Your task to perform on an android device: Open calendar and show me the fourth week of next month Image 0: 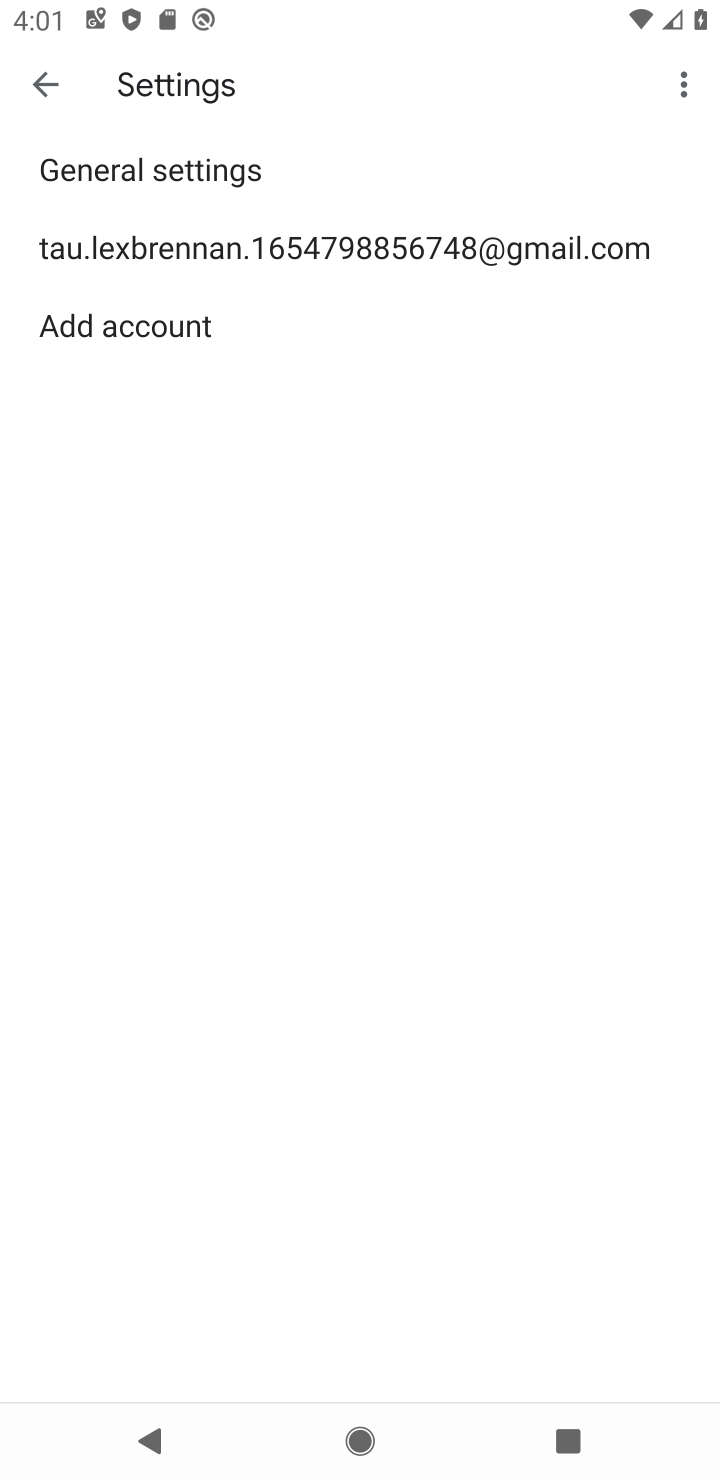
Step 0: press home button
Your task to perform on an android device: Open calendar and show me the fourth week of next month Image 1: 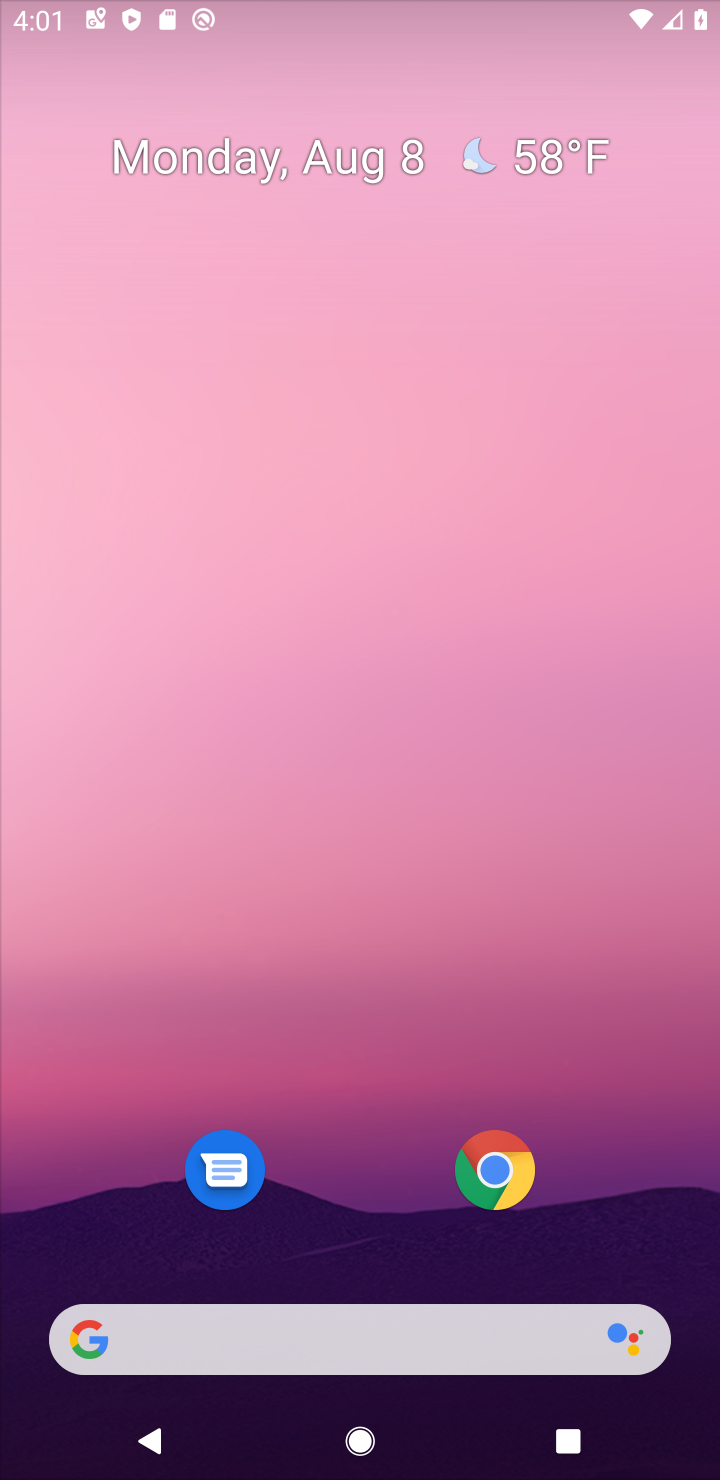
Step 1: drag from (351, 1015) to (354, 165)
Your task to perform on an android device: Open calendar and show me the fourth week of next month Image 2: 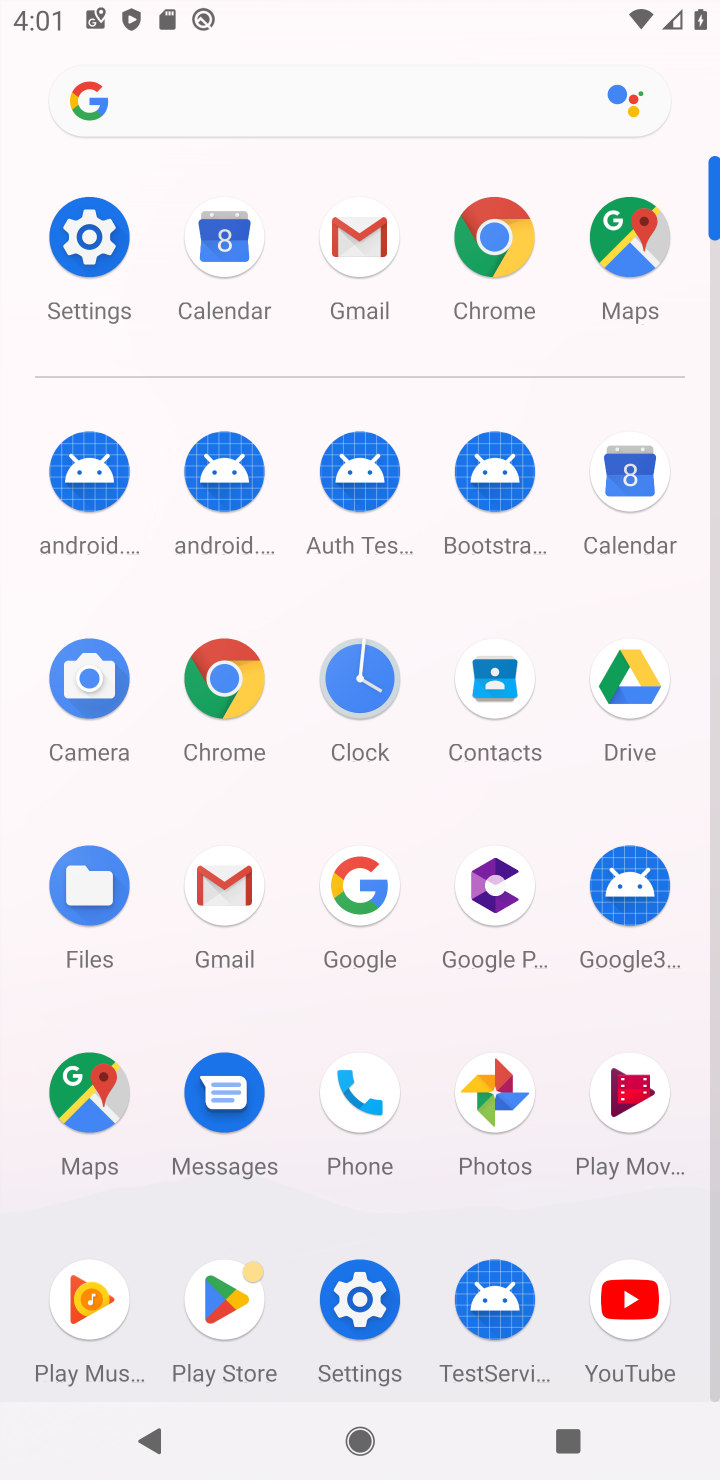
Step 2: click (260, 259)
Your task to perform on an android device: Open calendar and show me the fourth week of next month Image 3: 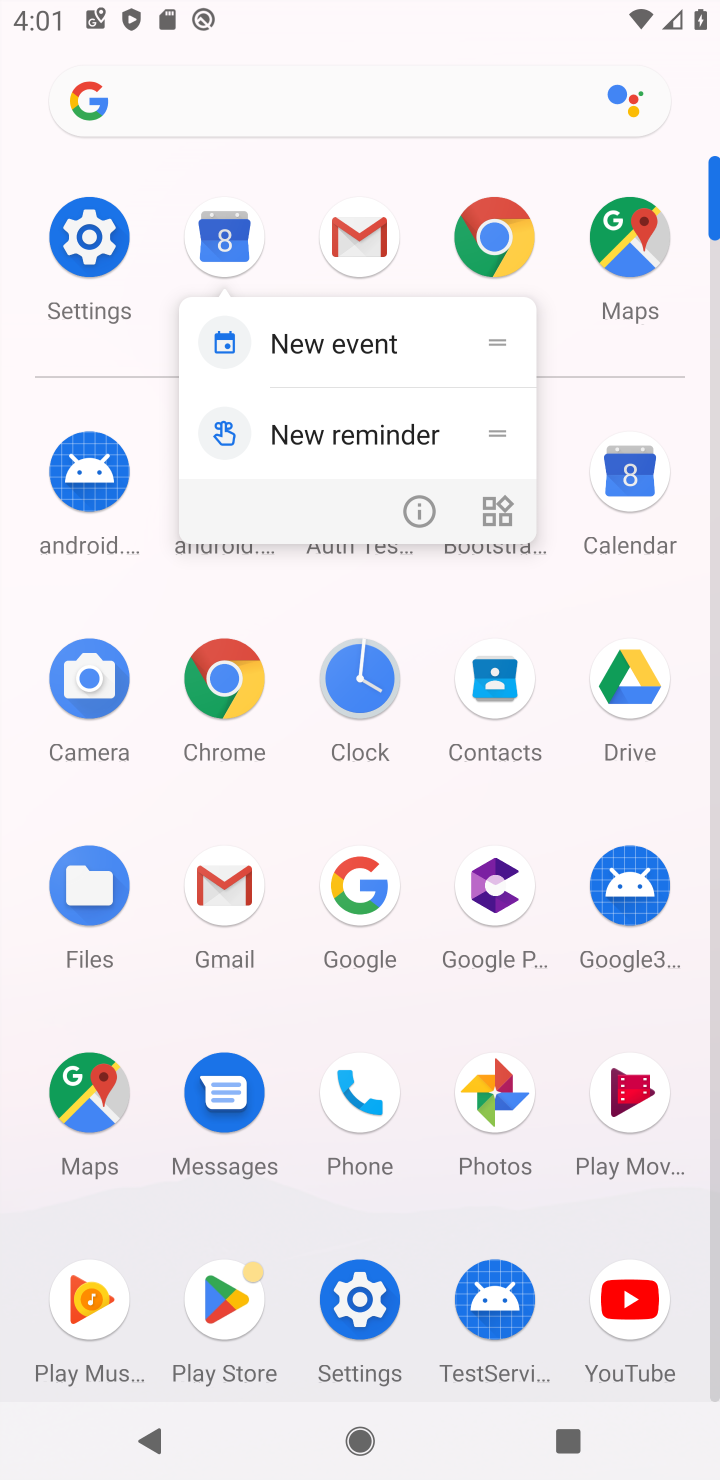
Step 3: click (235, 236)
Your task to perform on an android device: Open calendar and show me the fourth week of next month Image 4: 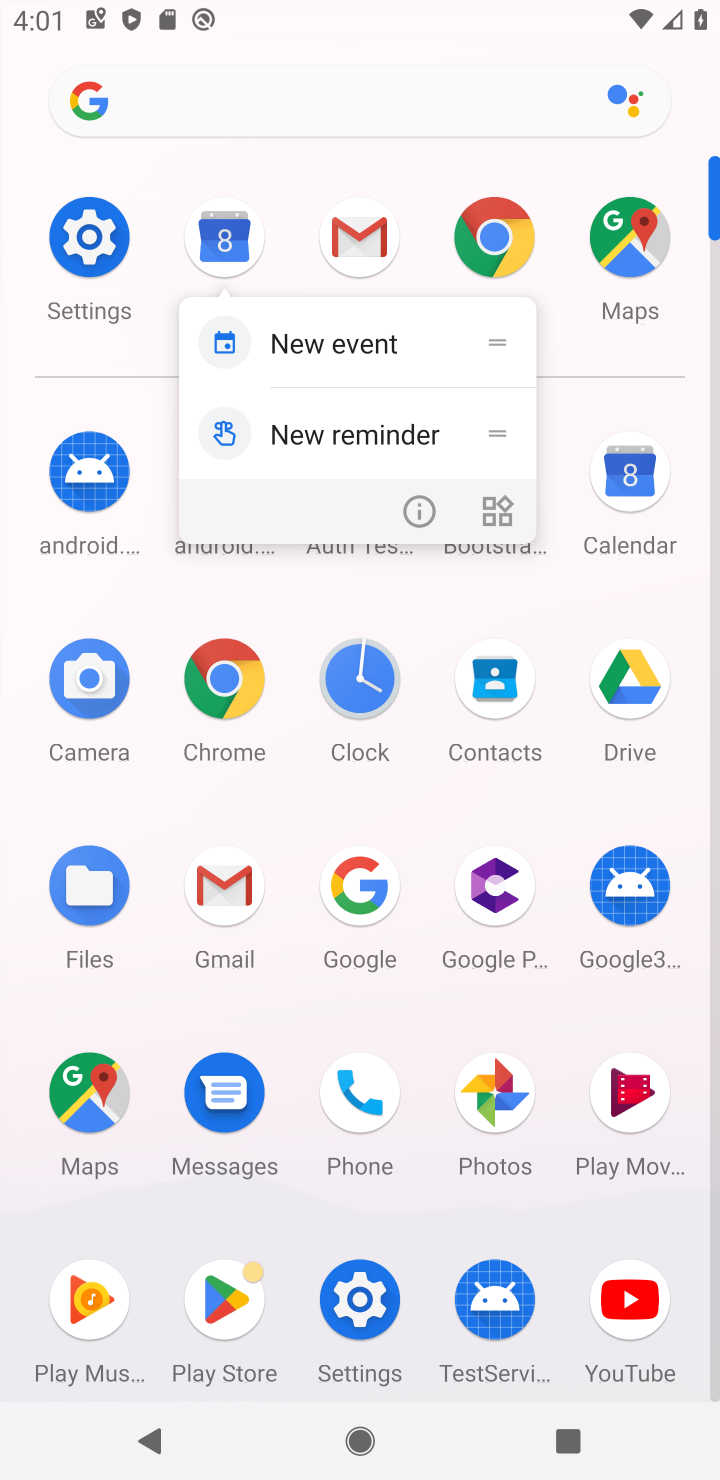
Step 4: click (235, 236)
Your task to perform on an android device: Open calendar and show me the fourth week of next month Image 5: 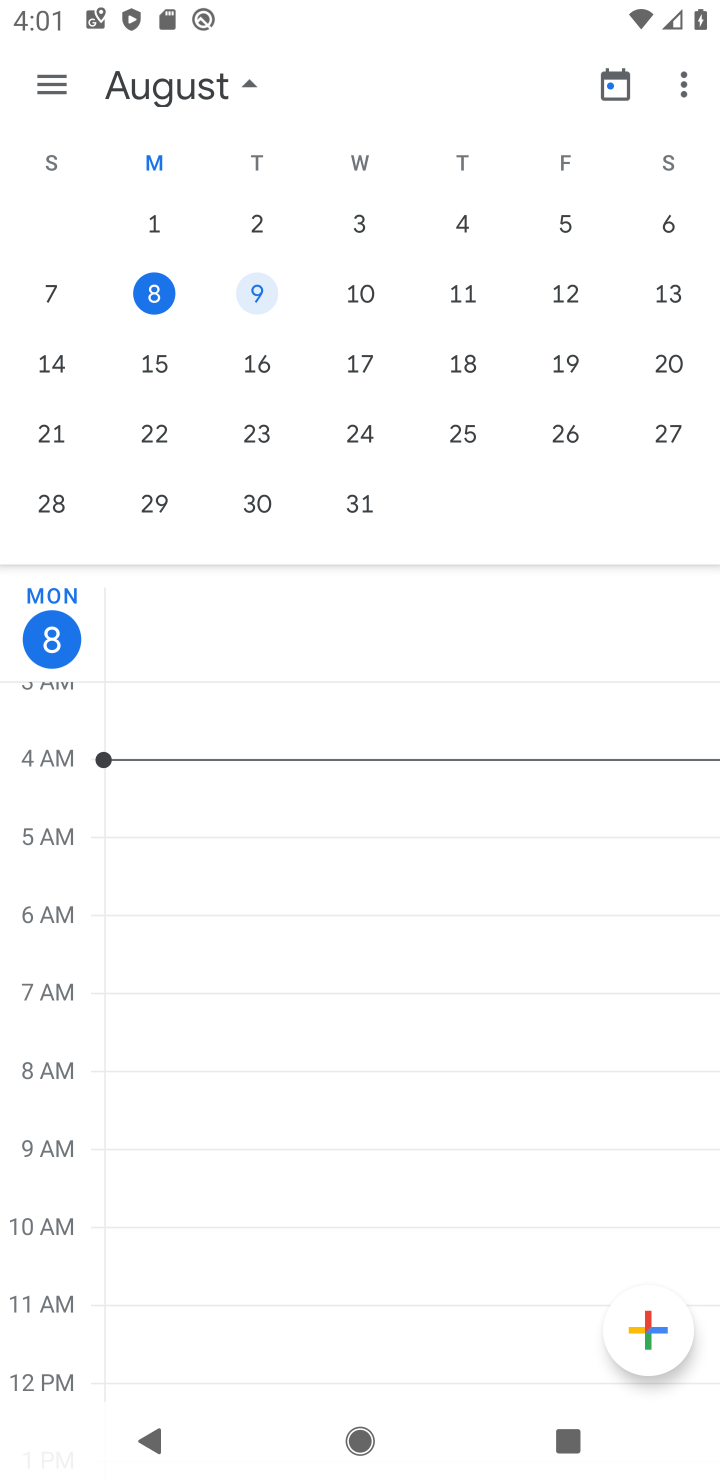
Step 5: drag from (578, 337) to (95, 338)
Your task to perform on an android device: Open calendar and show me the fourth week of next month Image 6: 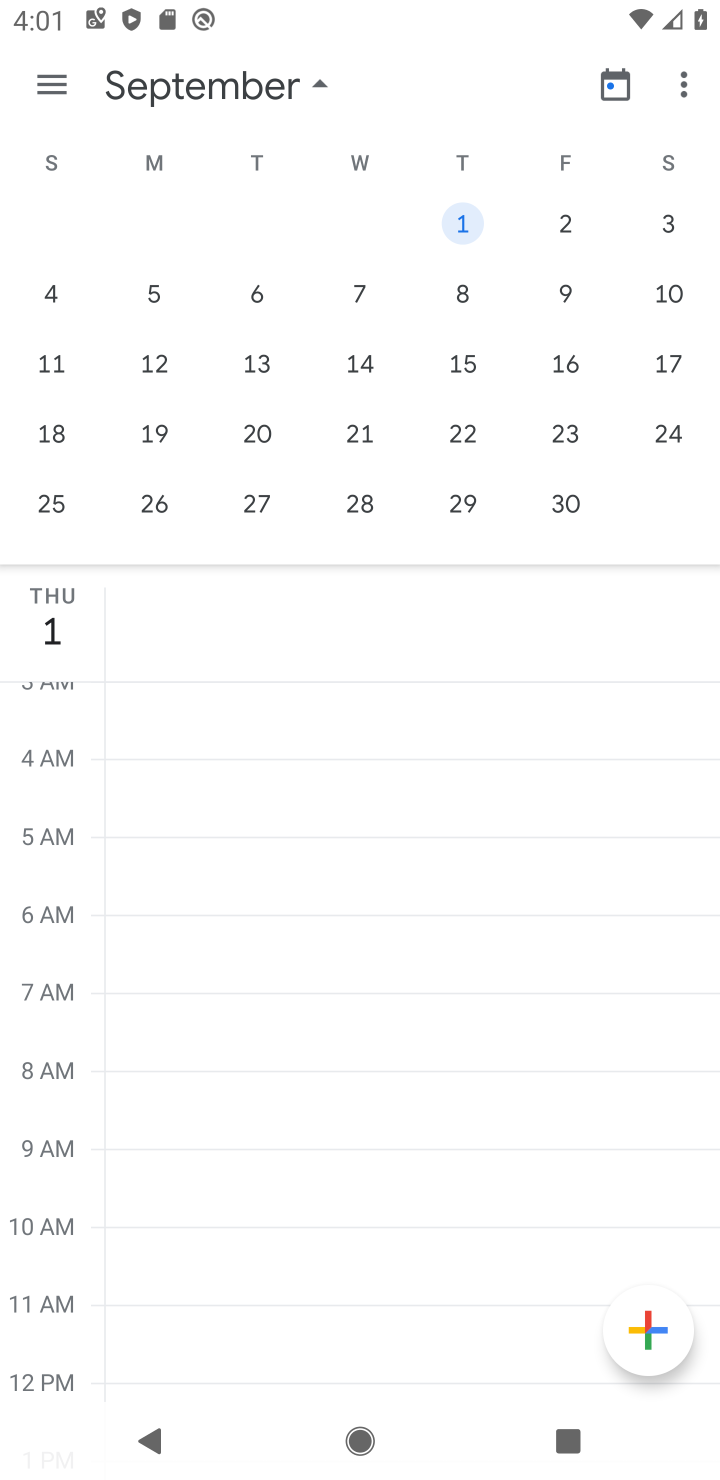
Step 6: click (56, 443)
Your task to perform on an android device: Open calendar and show me the fourth week of next month Image 7: 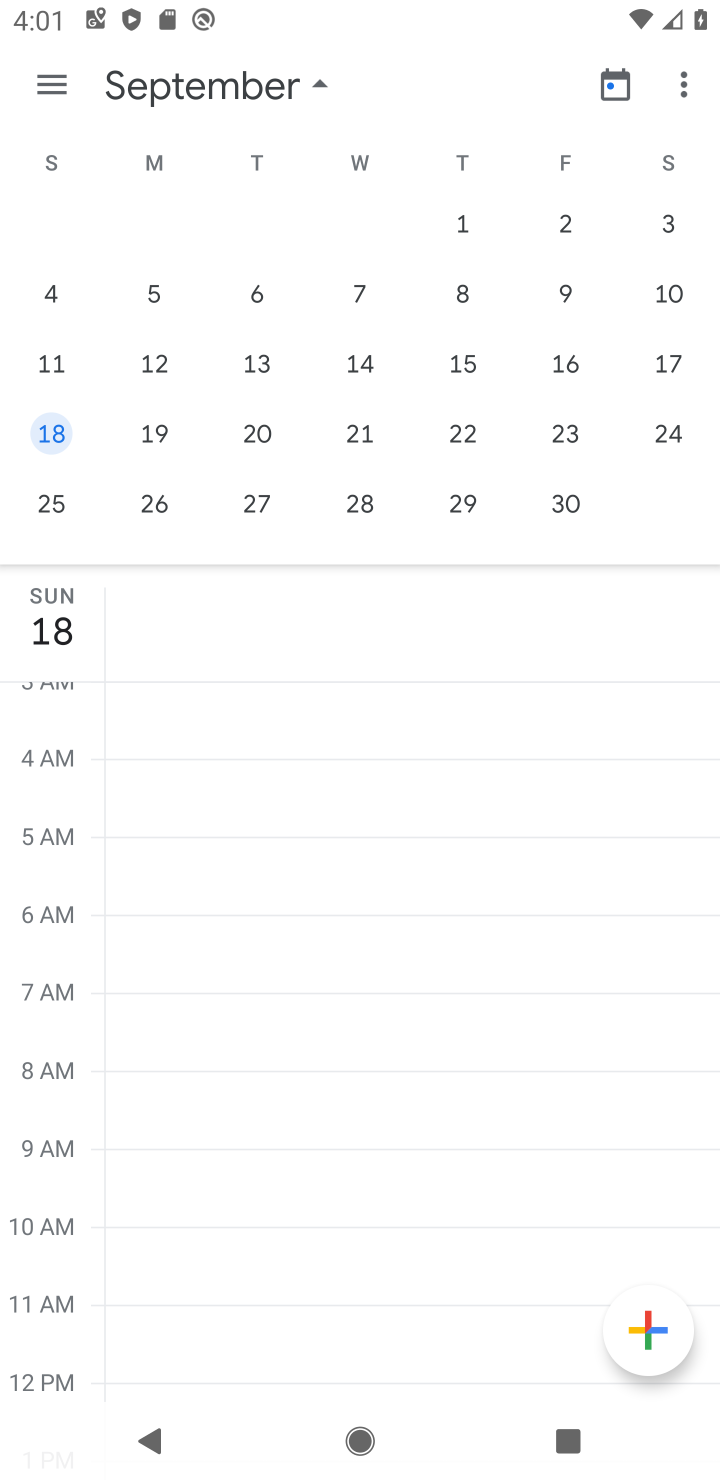
Step 7: task complete